Your task to perform on an android device: Go to Google maps Image 0: 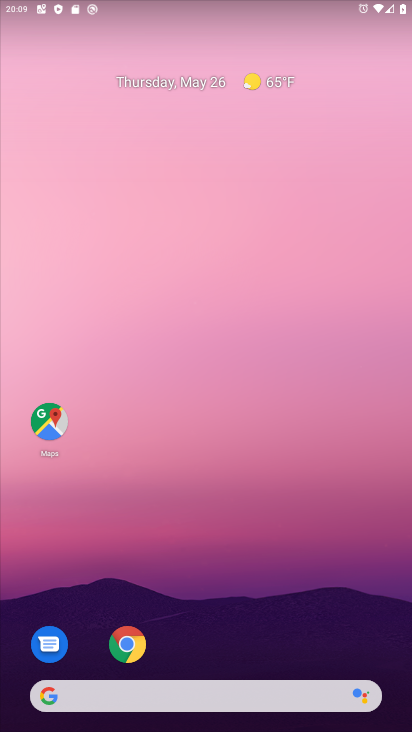
Step 0: drag from (184, 654) to (239, 64)
Your task to perform on an android device: Go to Google maps Image 1: 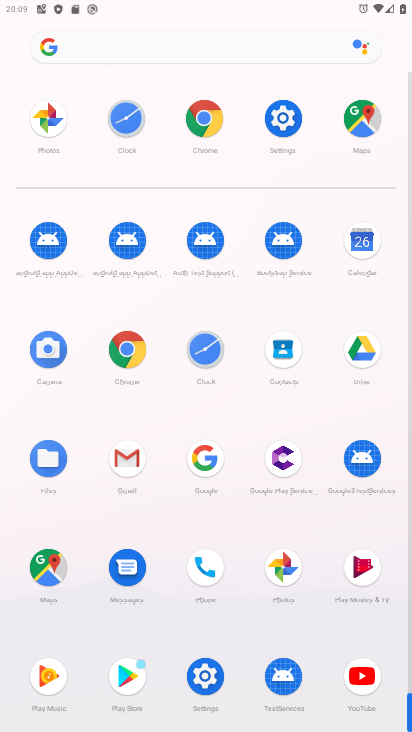
Step 1: click (43, 570)
Your task to perform on an android device: Go to Google maps Image 2: 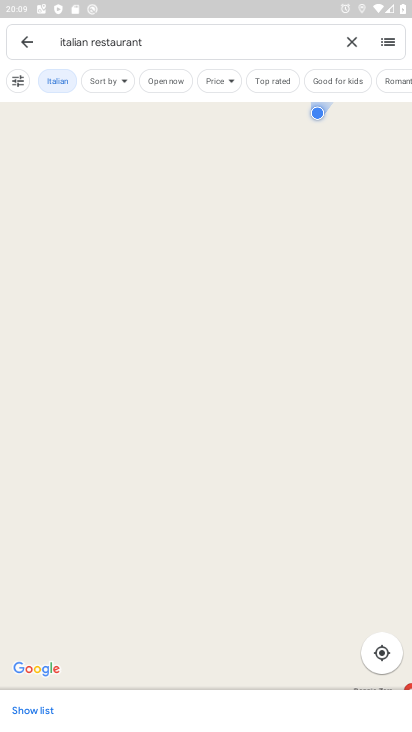
Step 2: task complete